Your task to perform on an android device: open chrome privacy settings Image 0: 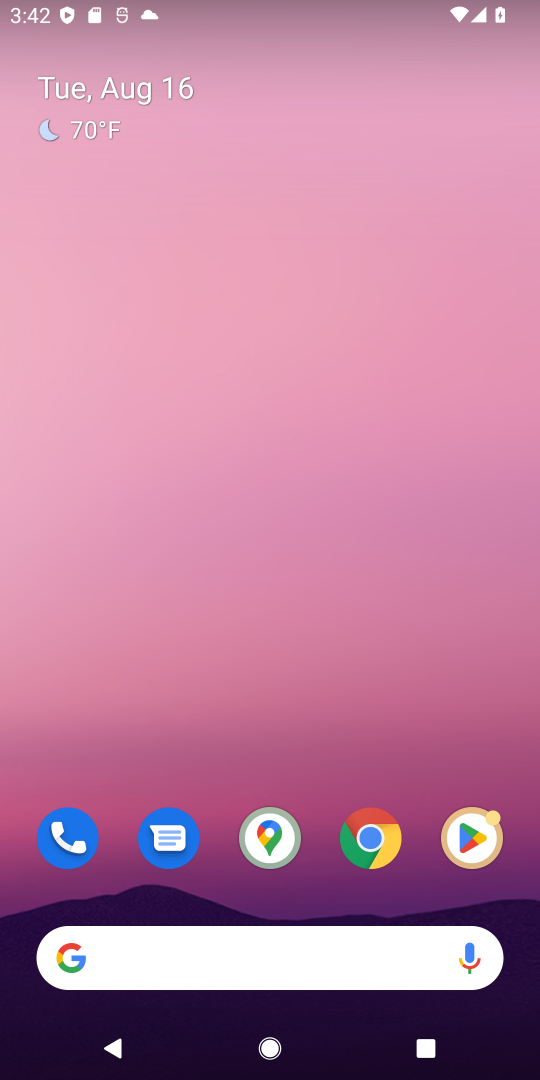
Step 0: click (356, 835)
Your task to perform on an android device: open chrome privacy settings Image 1: 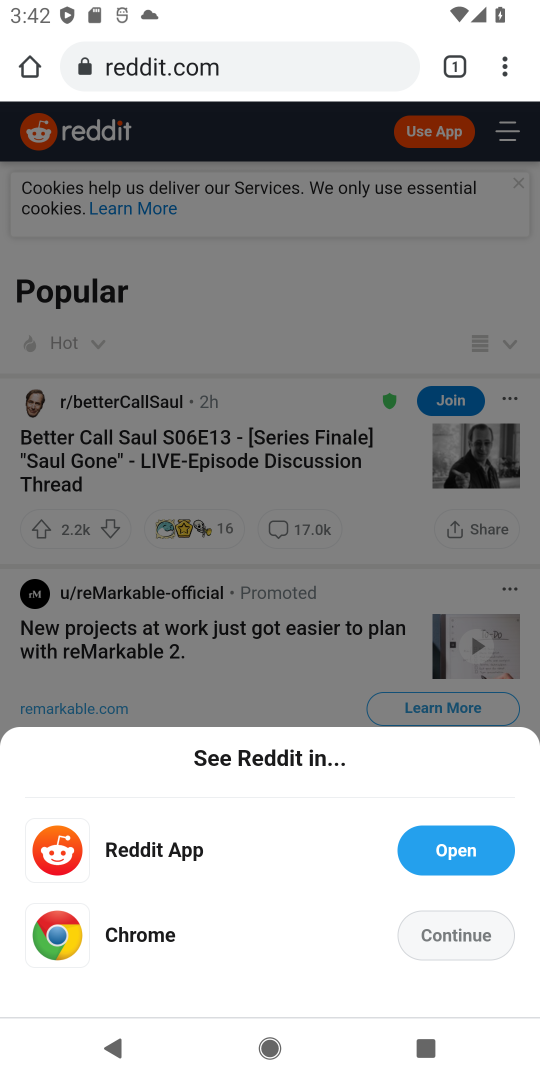
Step 1: drag from (514, 78) to (381, 820)
Your task to perform on an android device: open chrome privacy settings Image 2: 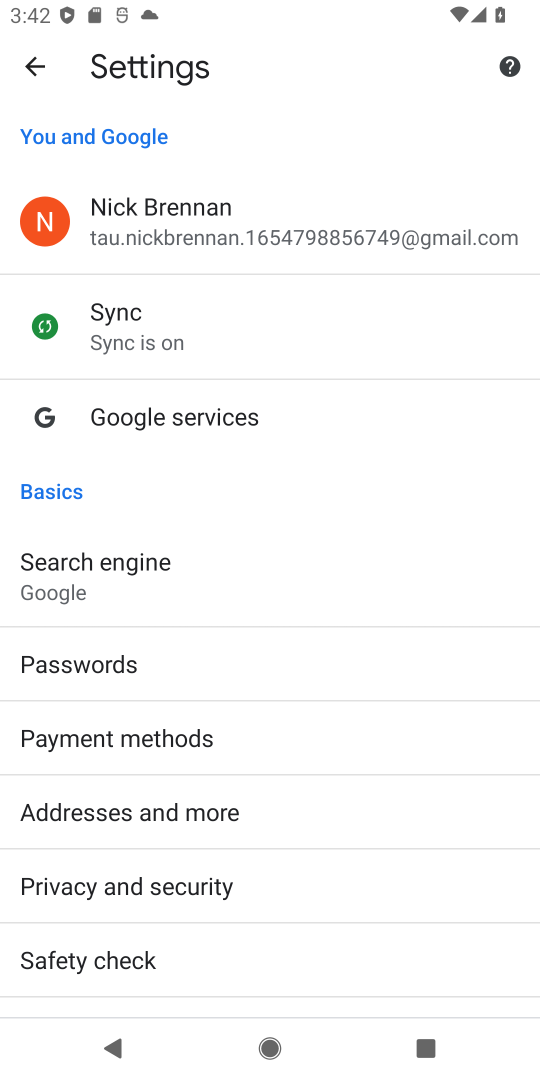
Step 2: drag from (236, 871) to (352, 184)
Your task to perform on an android device: open chrome privacy settings Image 3: 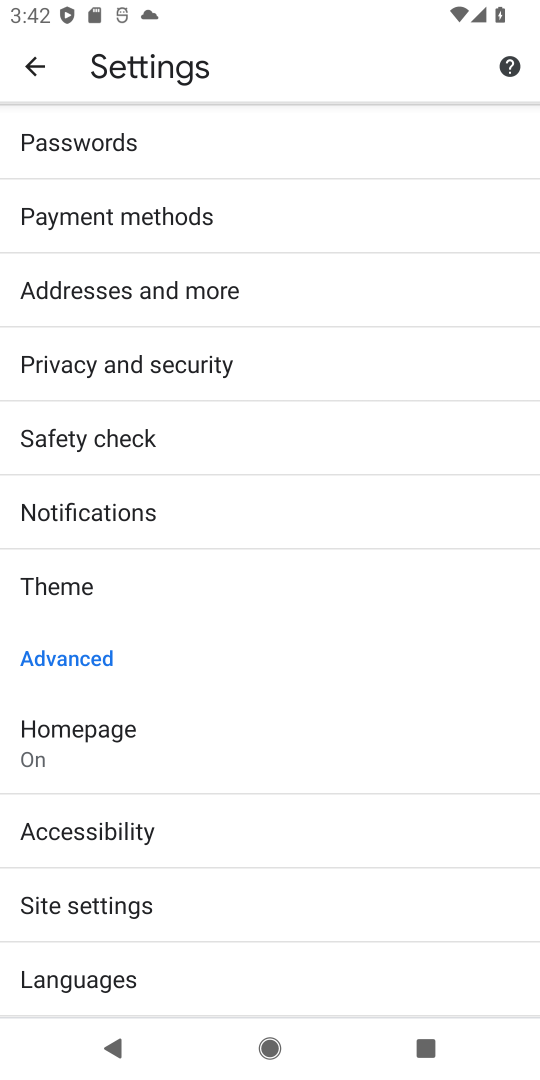
Step 3: drag from (129, 931) to (157, 402)
Your task to perform on an android device: open chrome privacy settings Image 4: 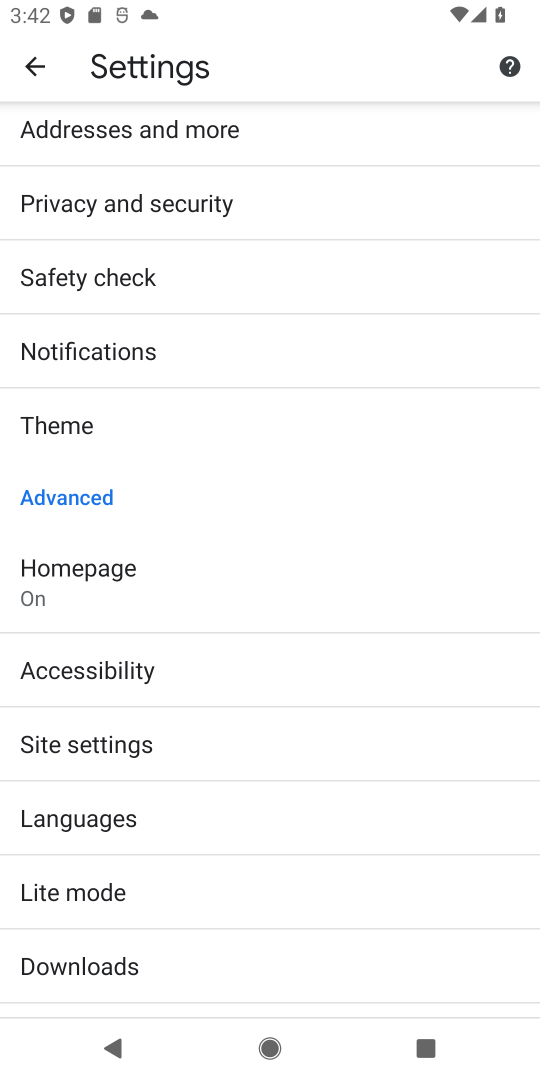
Step 4: drag from (176, 279) to (201, 794)
Your task to perform on an android device: open chrome privacy settings Image 5: 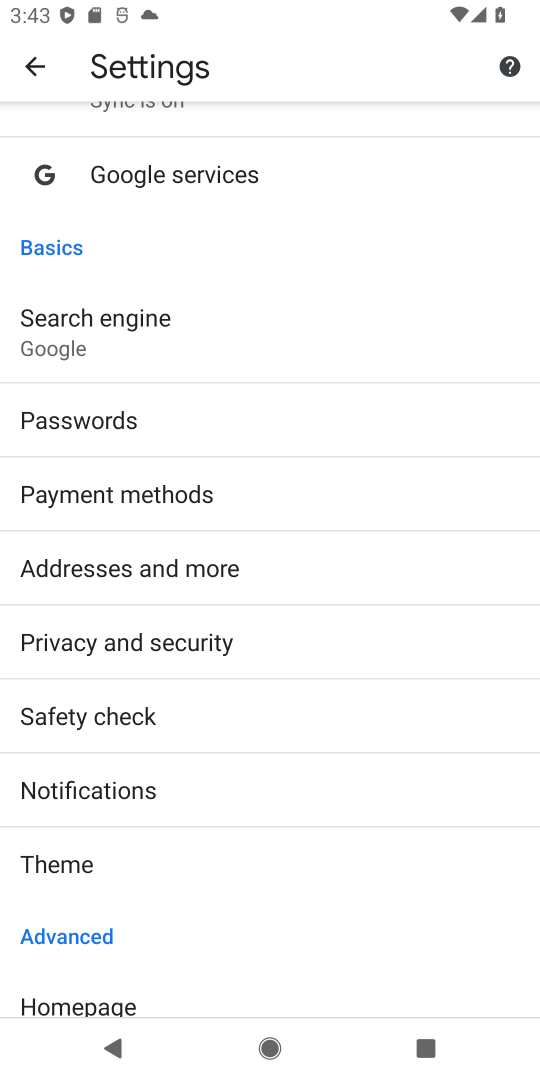
Step 5: click (152, 647)
Your task to perform on an android device: open chrome privacy settings Image 6: 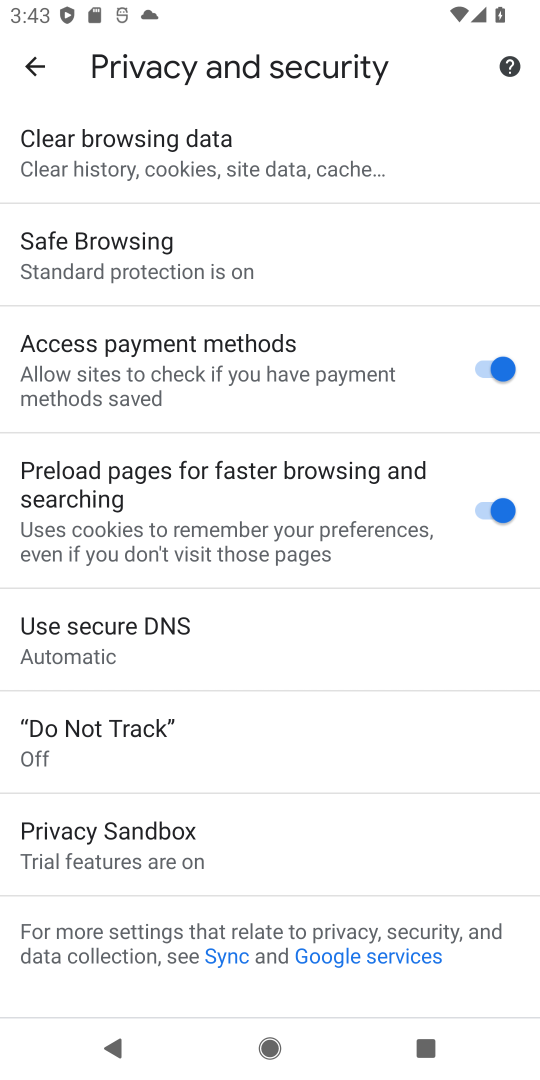
Step 6: task complete